Your task to perform on an android device: turn on bluetooth scan Image 0: 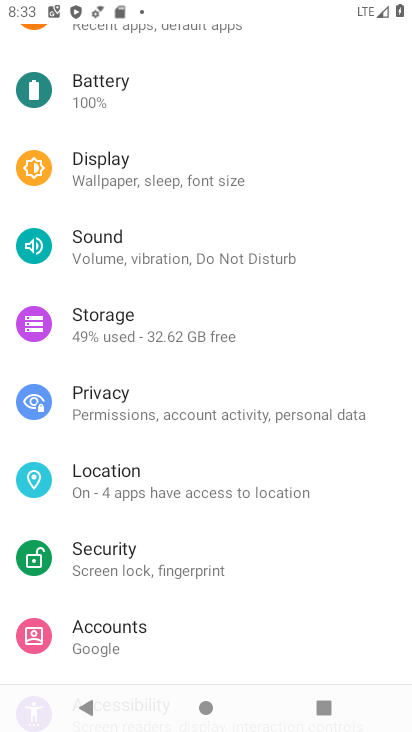
Step 0: click (216, 495)
Your task to perform on an android device: turn on bluetooth scan Image 1: 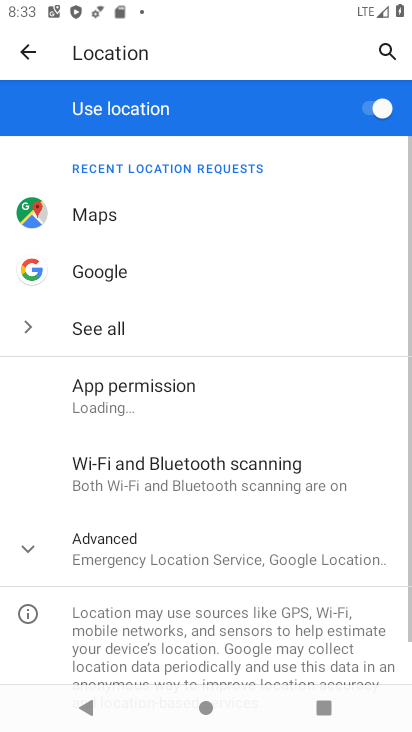
Step 1: click (224, 492)
Your task to perform on an android device: turn on bluetooth scan Image 2: 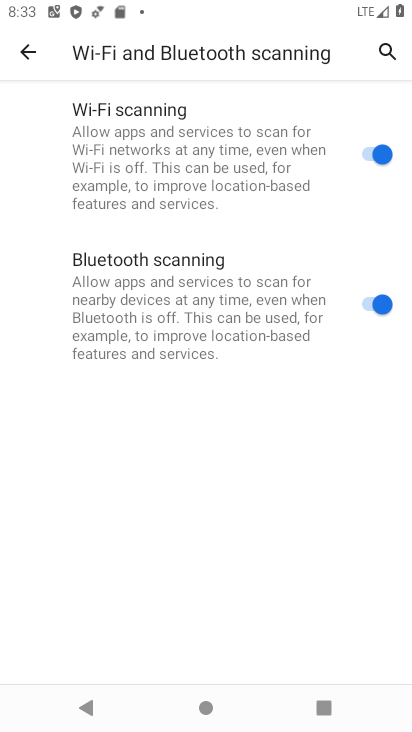
Step 2: task complete